Your task to perform on an android device: Open display settings Image 0: 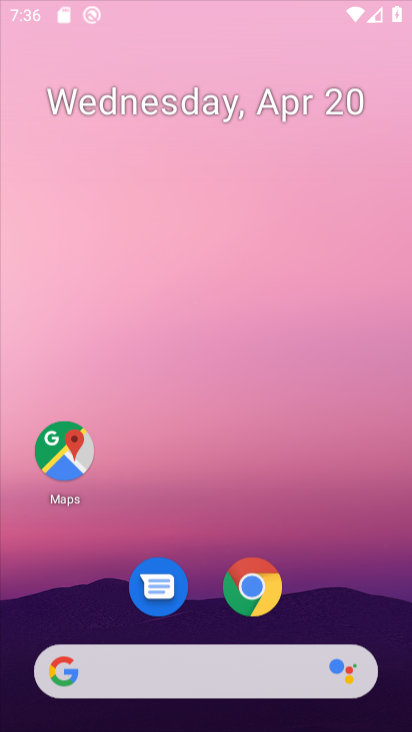
Step 0: drag from (170, 15) to (116, 114)
Your task to perform on an android device: Open display settings Image 1: 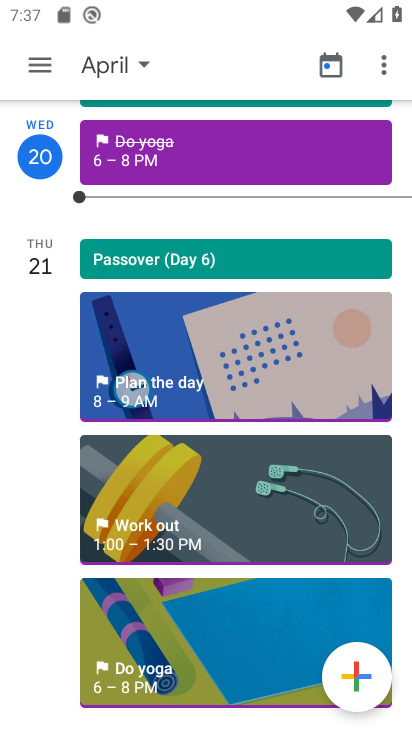
Step 1: press back button
Your task to perform on an android device: Open display settings Image 2: 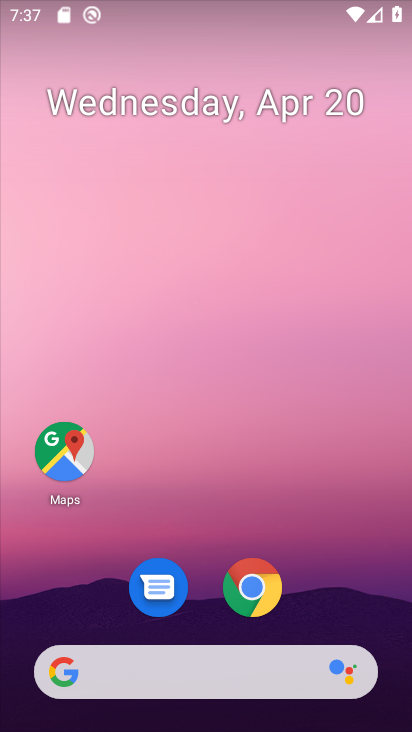
Step 2: drag from (329, 622) to (270, 22)
Your task to perform on an android device: Open display settings Image 3: 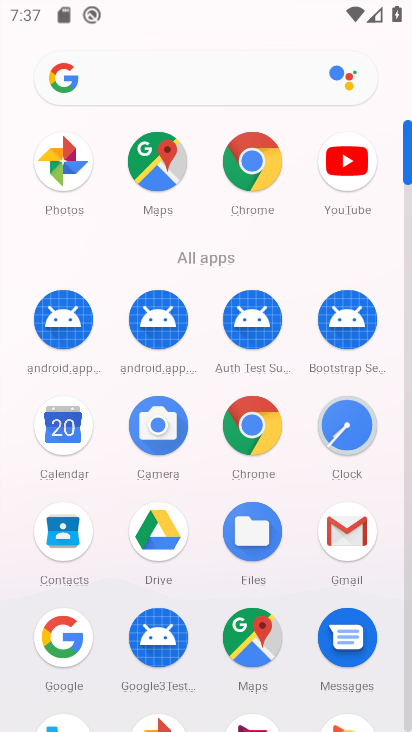
Step 3: click (405, 524)
Your task to perform on an android device: Open display settings Image 4: 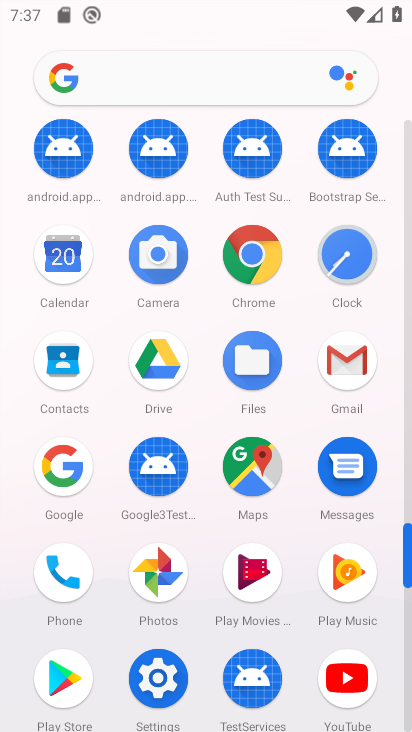
Step 4: click (147, 689)
Your task to perform on an android device: Open display settings Image 5: 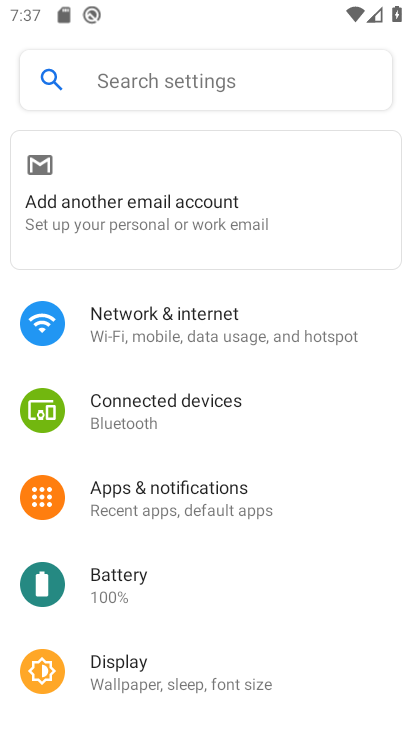
Step 5: drag from (260, 573) to (194, 249)
Your task to perform on an android device: Open display settings Image 6: 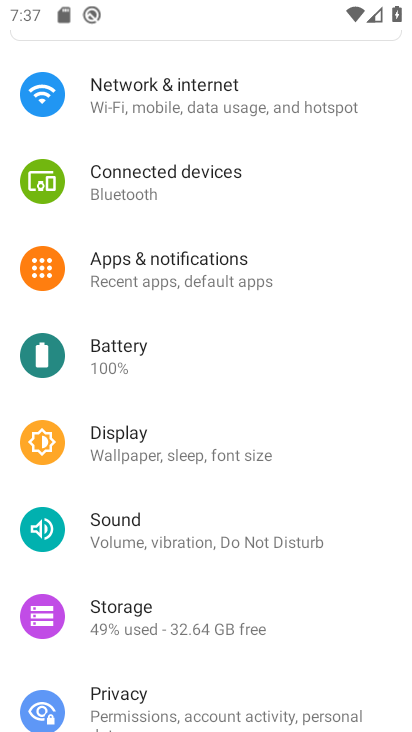
Step 6: click (242, 462)
Your task to perform on an android device: Open display settings Image 7: 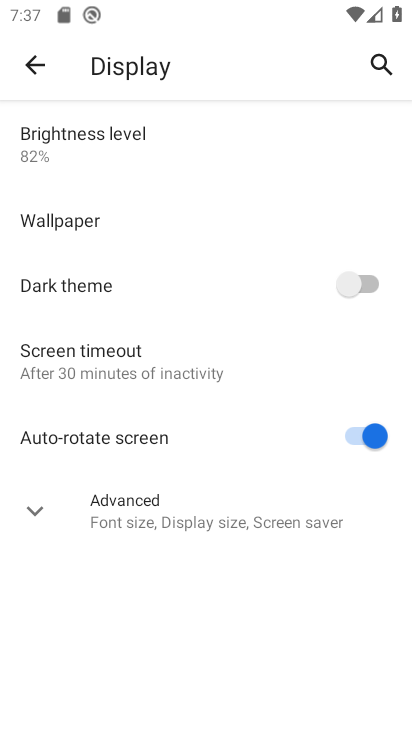
Step 7: task complete